Your task to perform on an android device: allow notifications from all sites in the chrome app Image 0: 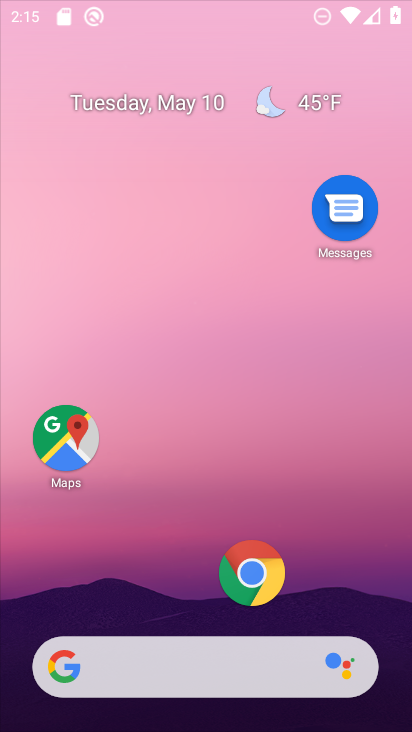
Step 0: click (250, 321)
Your task to perform on an android device: allow notifications from all sites in the chrome app Image 1: 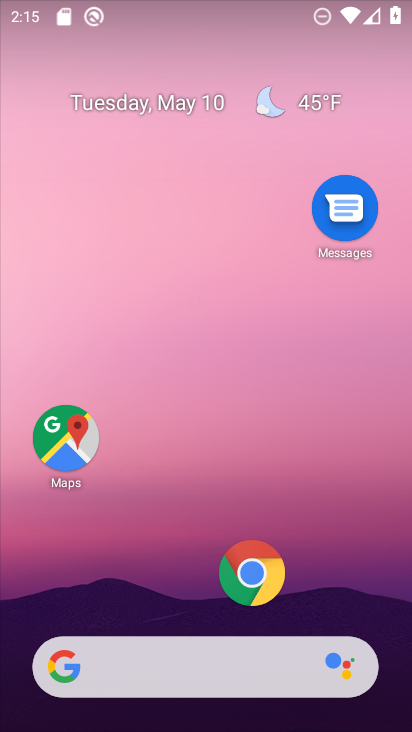
Step 1: click (248, 565)
Your task to perform on an android device: allow notifications from all sites in the chrome app Image 2: 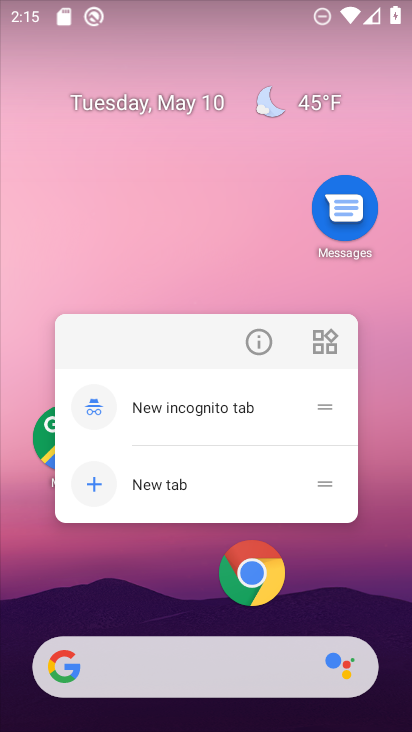
Step 2: click (254, 345)
Your task to perform on an android device: allow notifications from all sites in the chrome app Image 3: 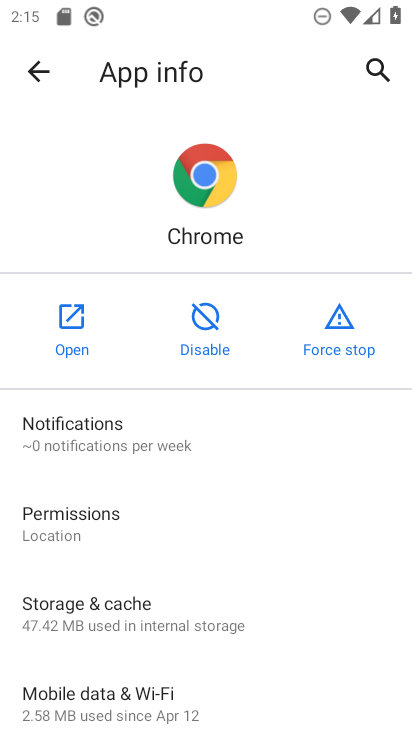
Step 3: click (64, 310)
Your task to perform on an android device: allow notifications from all sites in the chrome app Image 4: 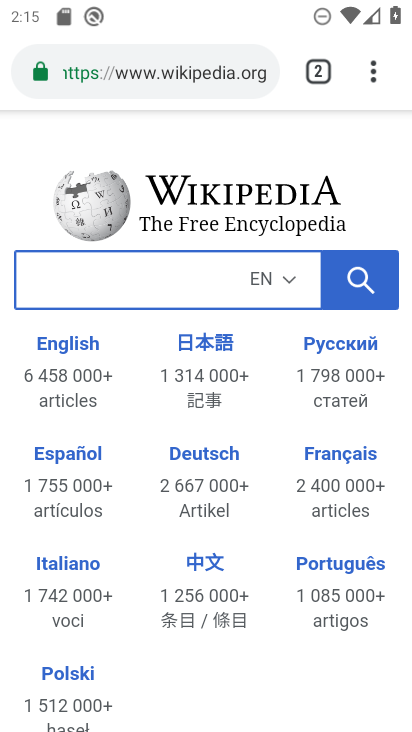
Step 4: drag from (366, 74) to (150, 576)
Your task to perform on an android device: allow notifications from all sites in the chrome app Image 5: 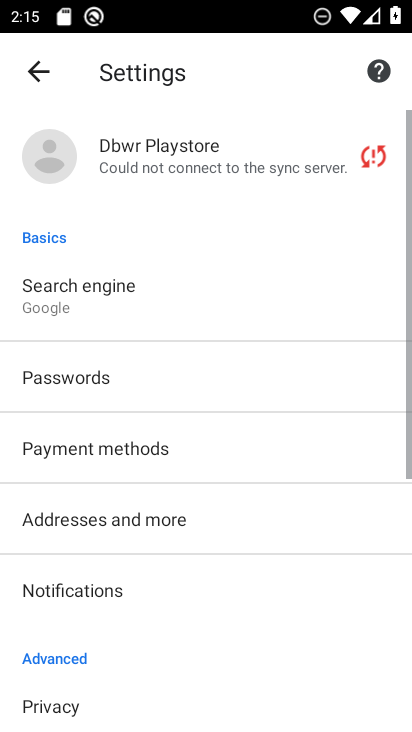
Step 5: drag from (192, 608) to (230, 126)
Your task to perform on an android device: allow notifications from all sites in the chrome app Image 6: 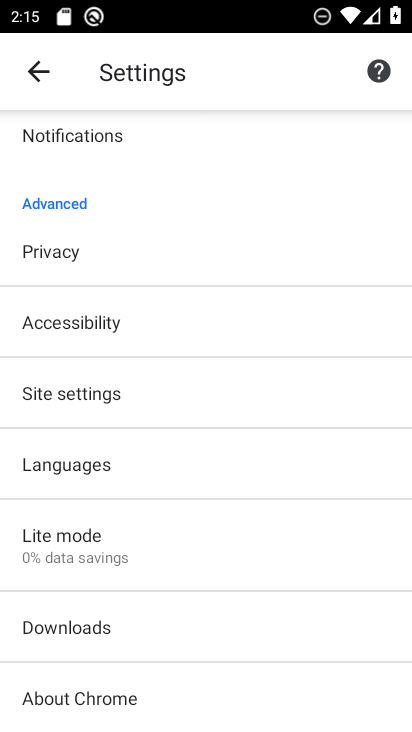
Step 6: click (109, 393)
Your task to perform on an android device: allow notifications from all sites in the chrome app Image 7: 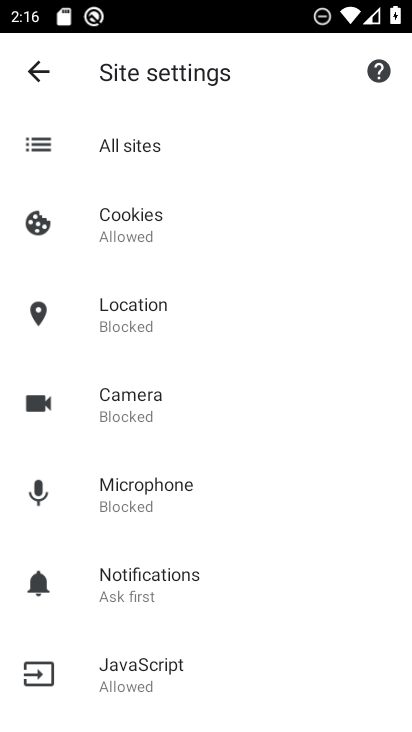
Step 7: click (150, 605)
Your task to perform on an android device: allow notifications from all sites in the chrome app Image 8: 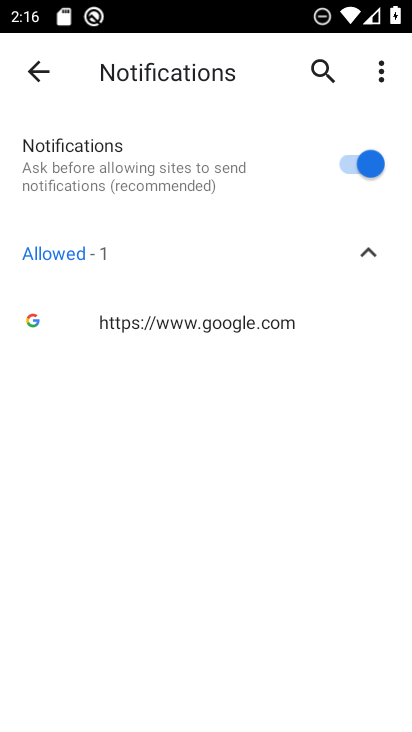
Step 8: task complete